Your task to perform on an android device: change the clock display to analog Image 0: 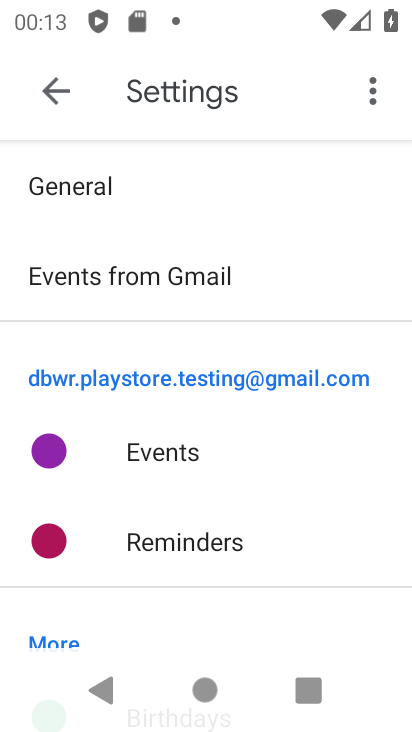
Step 0: click (60, 98)
Your task to perform on an android device: change the clock display to analog Image 1: 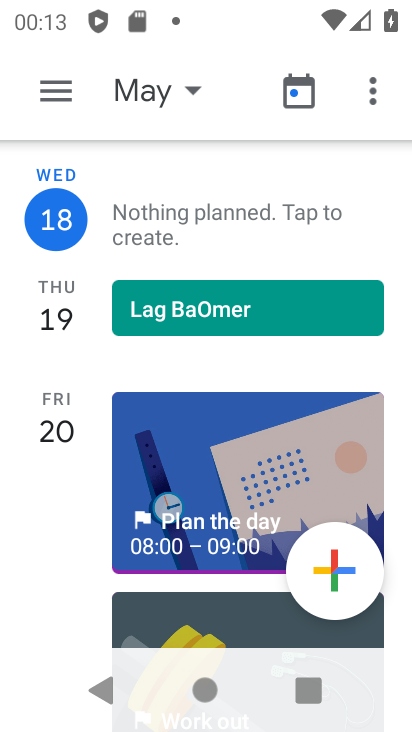
Step 1: press back button
Your task to perform on an android device: change the clock display to analog Image 2: 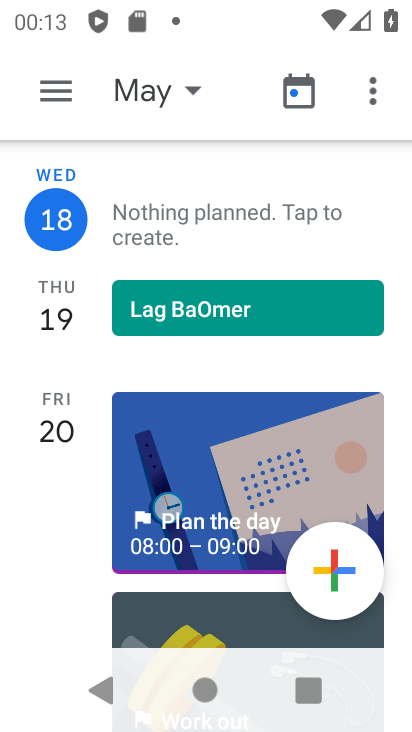
Step 2: press back button
Your task to perform on an android device: change the clock display to analog Image 3: 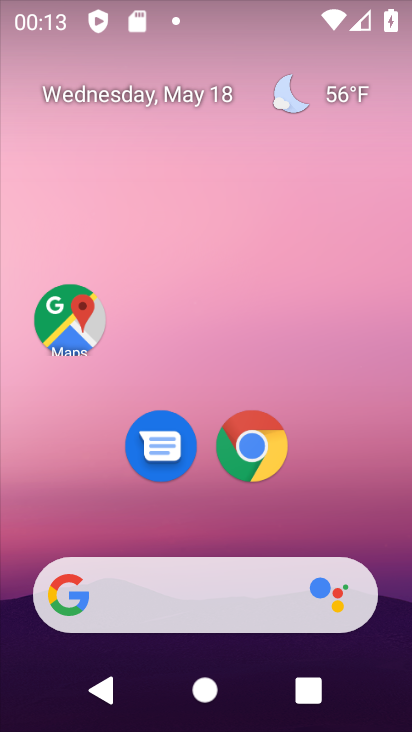
Step 3: drag from (377, 625) to (198, 169)
Your task to perform on an android device: change the clock display to analog Image 4: 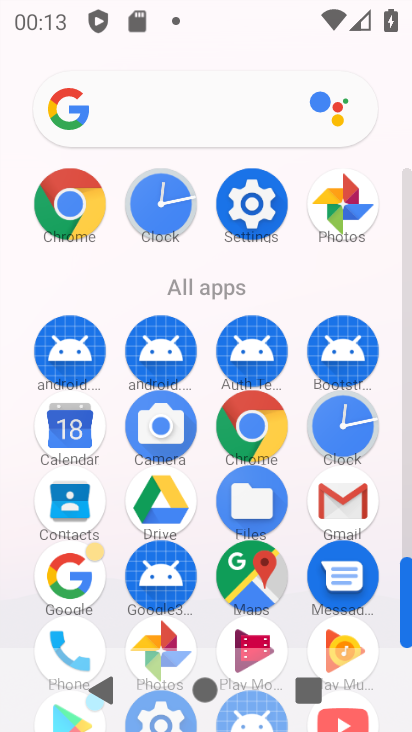
Step 4: click (350, 424)
Your task to perform on an android device: change the clock display to analog Image 5: 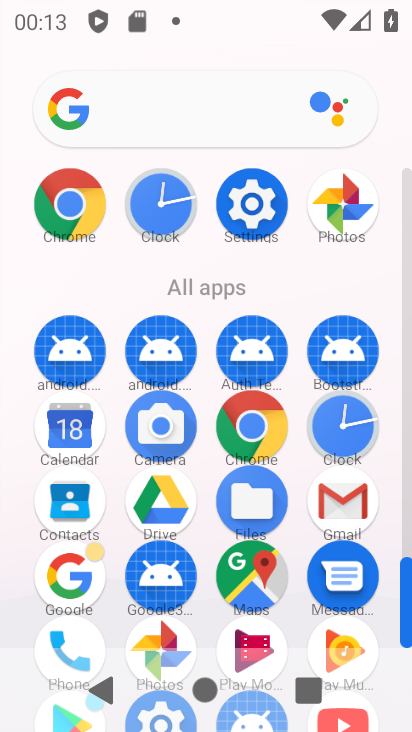
Step 5: click (350, 423)
Your task to perform on an android device: change the clock display to analog Image 6: 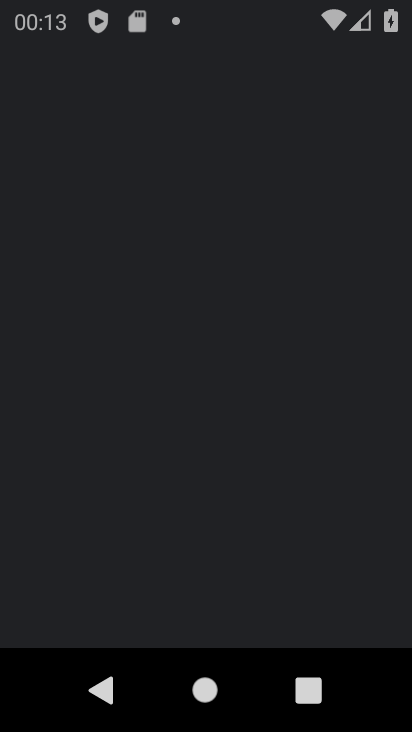
Step 6: click (350, 423)
Your task to perform on an android device: change the clock display to analog Image 7: 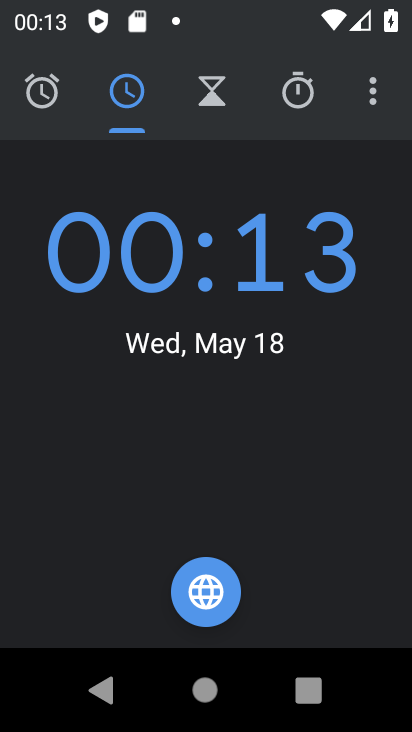
Step 7: click (369, 92)
Your task to perform on an android device: change the clock display to analog Image 8: 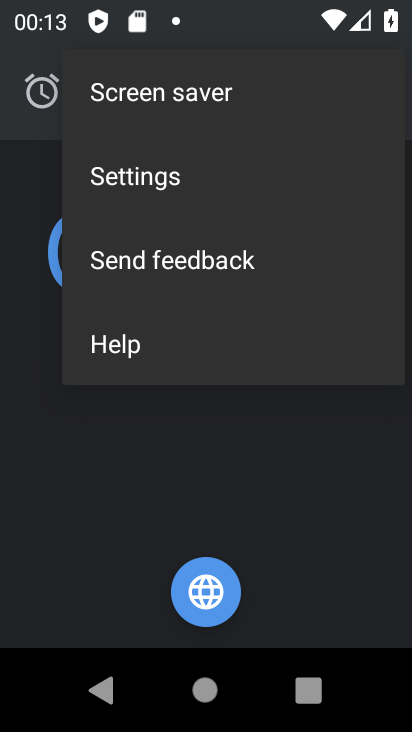
Step 8: click (141, 174)
Your task to perform on an android device: change the clock display to analog Image 9: 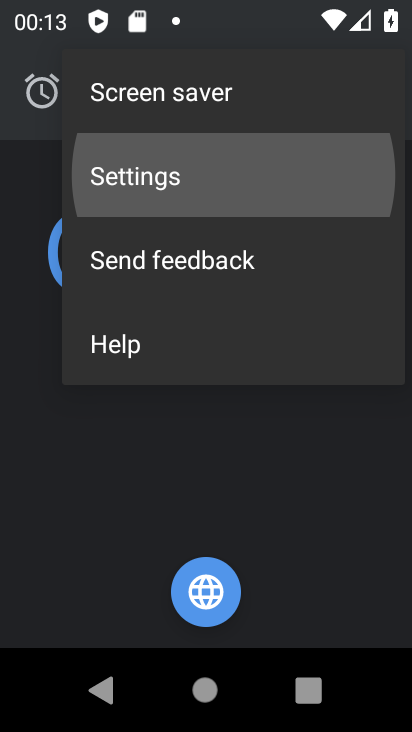
Step 9: click (141, 174)
Your task to perform on an android device: change the clock display to analog Image 10: 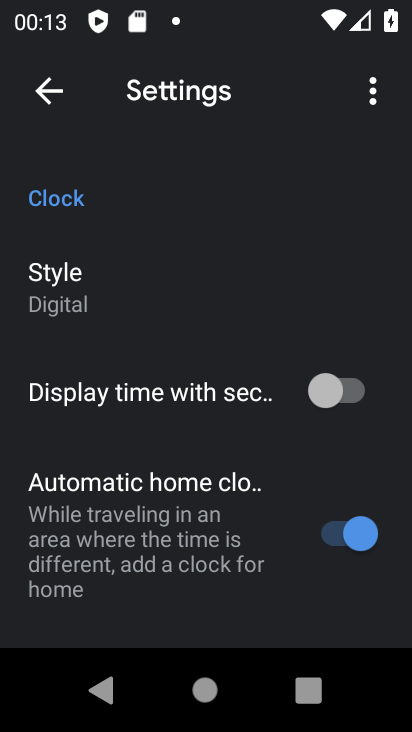
Step 10: click (137, 273)
Your task to perform on an android device: change the clock display to analog Image 11: 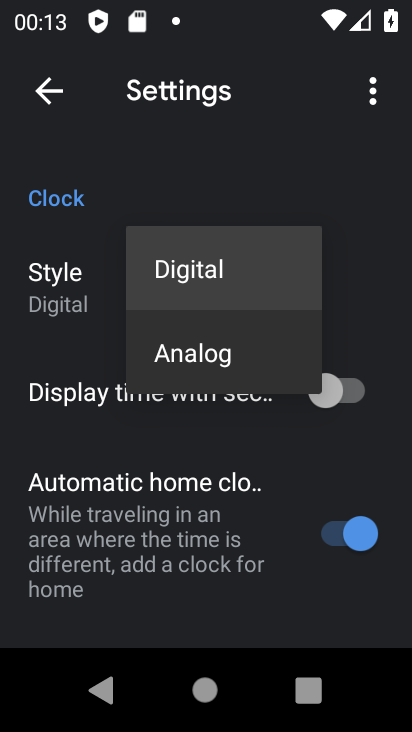
Step 11: click (216, 363)
Your task to perform on an android device: change the clock display to analog Image 12: 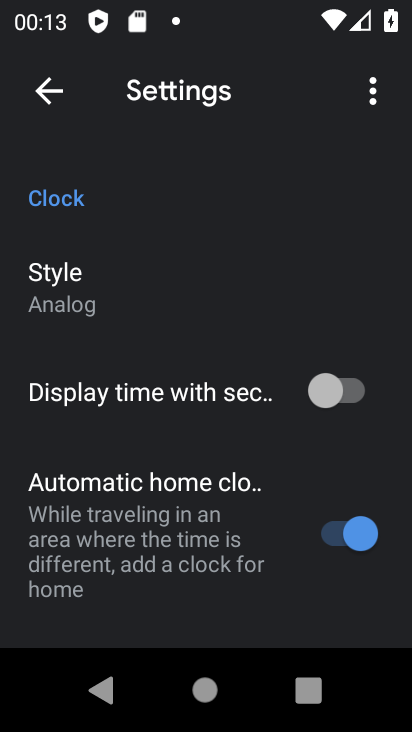
Step 12: task complete